Your task to perform on an android device: toggle pop-ups in chrome Image 0: 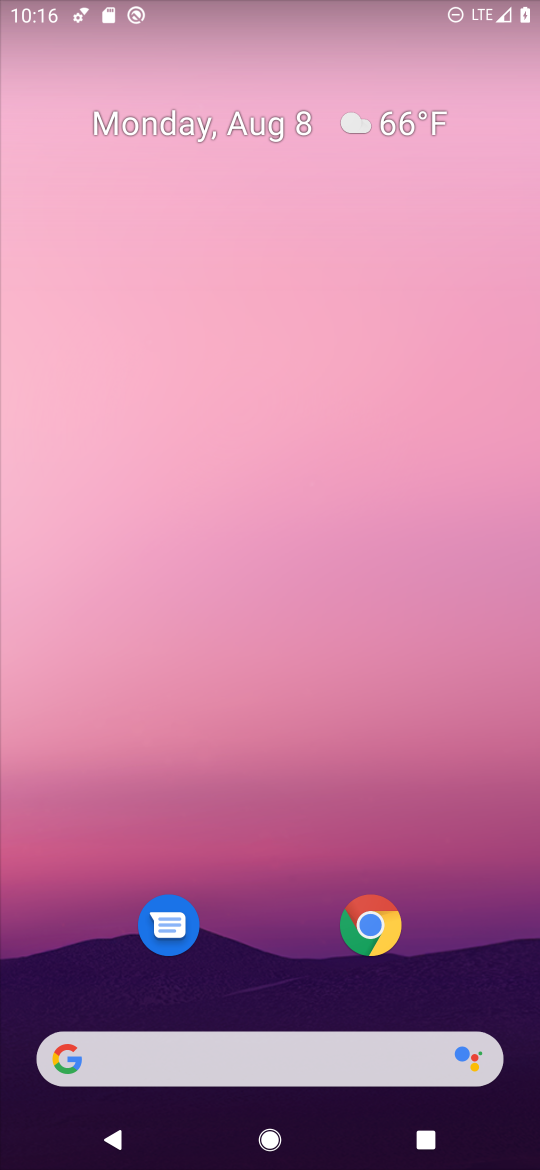
Step 0: drag from (252, 812) to (277, 137)
Your task to perform on an android device: toggle pop-ups in chrome Image 1: 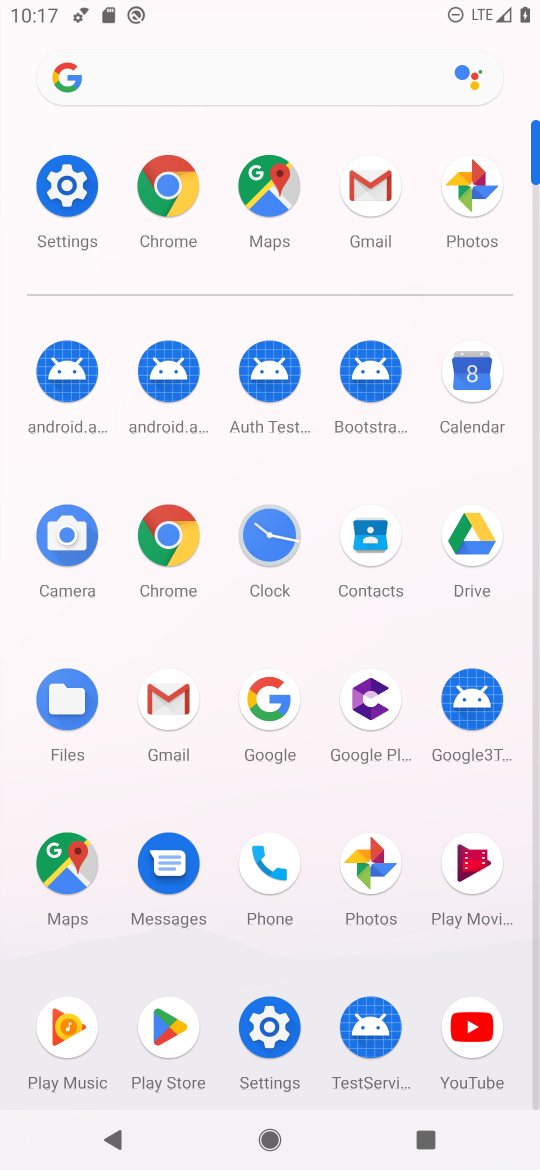
Step 1: click (176, 528)
Your task to perform on an android device: toggle pop-ups in chrome Image 2: 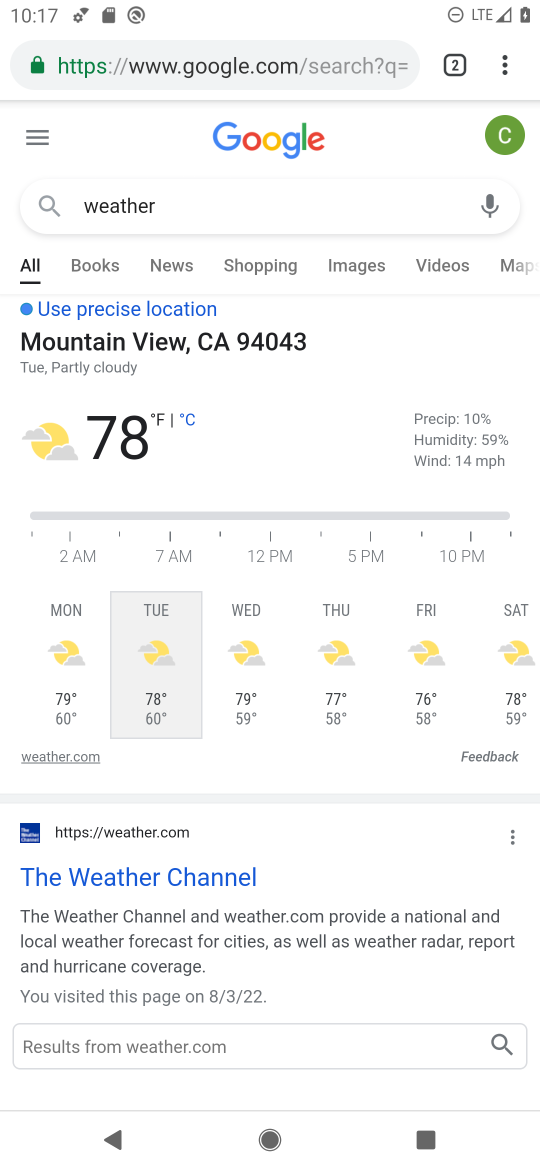
Step 2: drag from (513, 67) to (293, 799)
Your task to perform on an android device: toggle pop-ups in chrome Image 3: 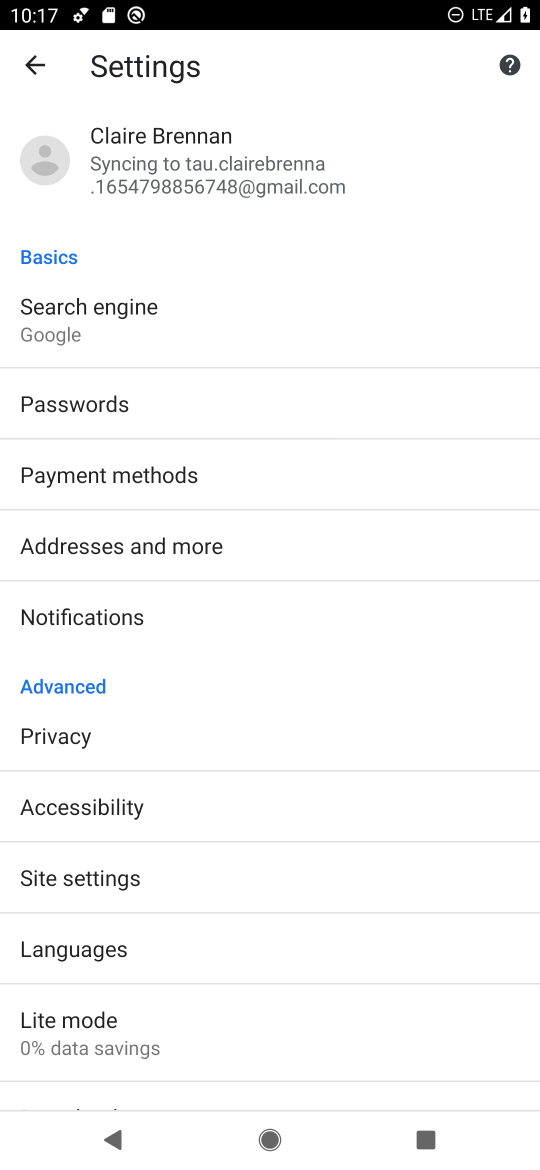
Step 3: drag from (245, 968) to (326, 222)
Your task to perform on an android device: toggle pop-ups in chrome Image 4: 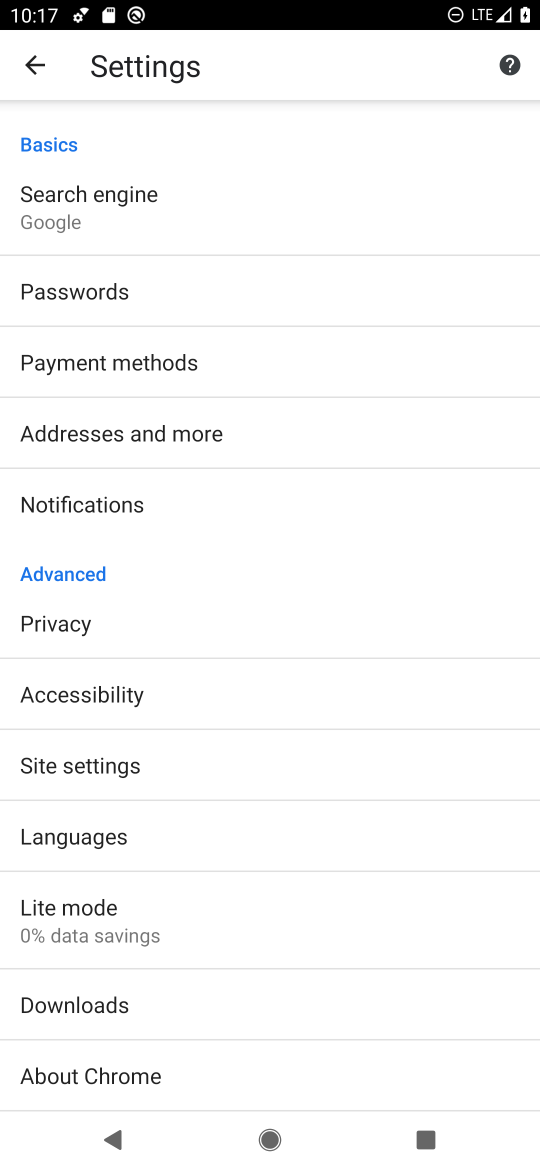
Step 4: click (77, 774)
Your task to perform on an android device: toggle pop-ups in chrome Image 5: 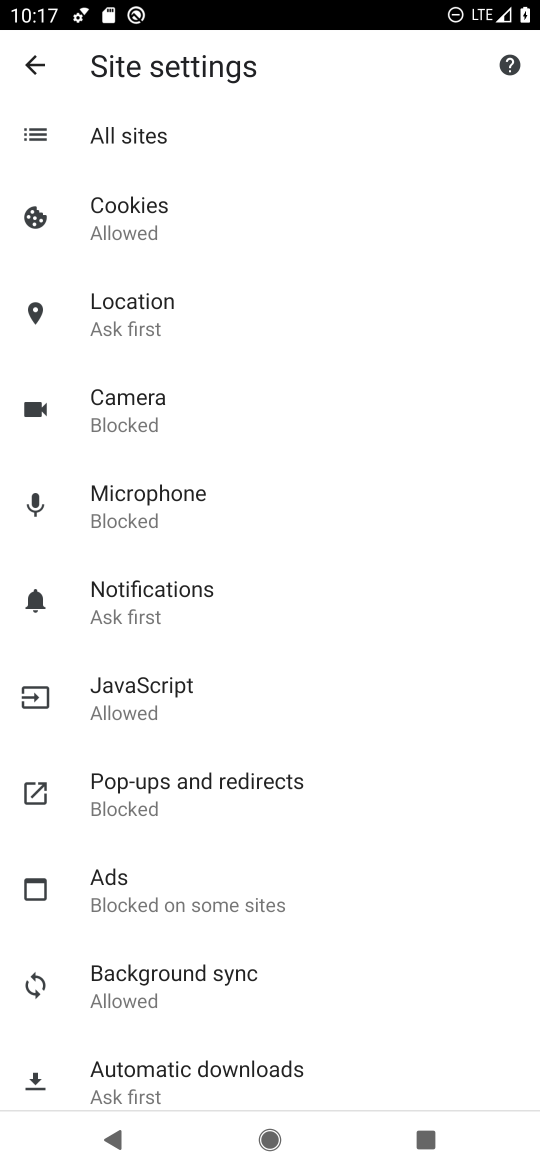
Step 5: click (166, 797)
Your task to perform on an android device: toggle pop-ups in chrome Image 6: 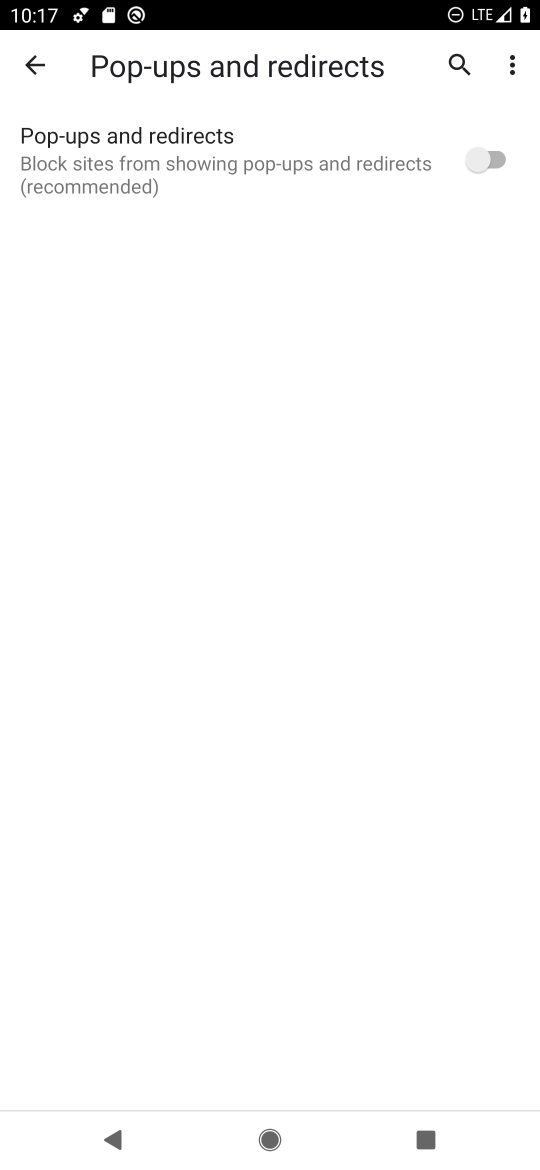
Step 6: click (497, 162)
Your task to perform on an android device: toggle pop-ups in chrome Image 7: 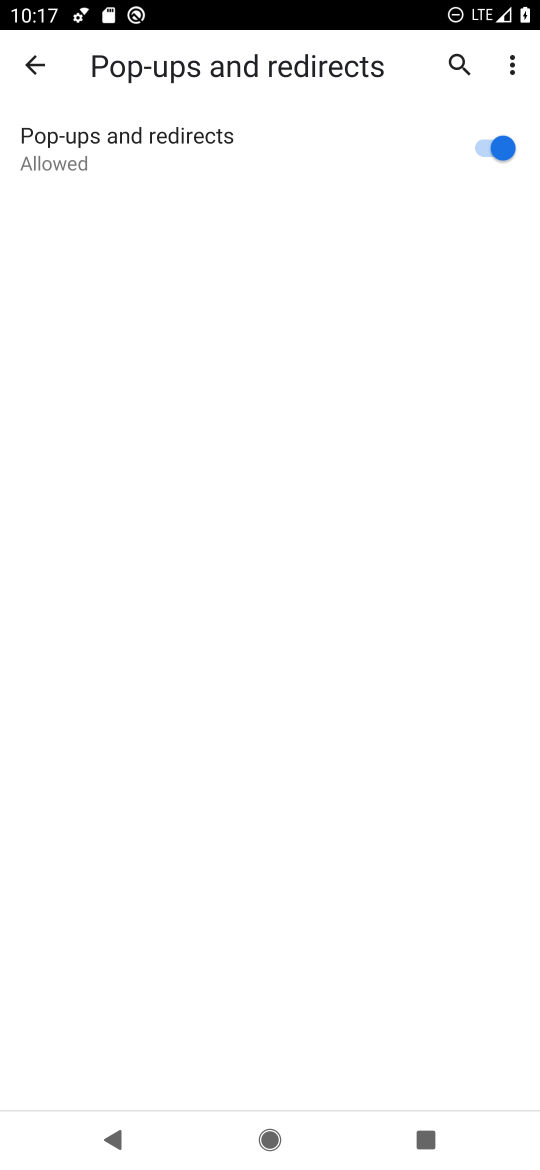
Step 7: task complete